Your task to perform on an android device: Is it going to rain today? Image 0: 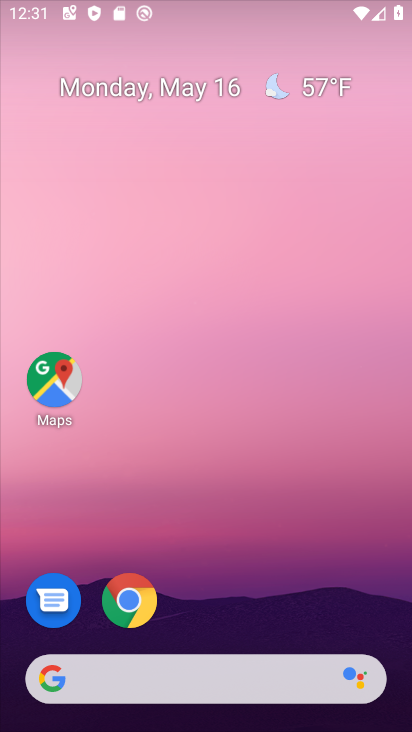
Step 0: drag from (266, 615) to (298, 146)
Your task to perform on an android device: Is it going to rain today? Image 1: 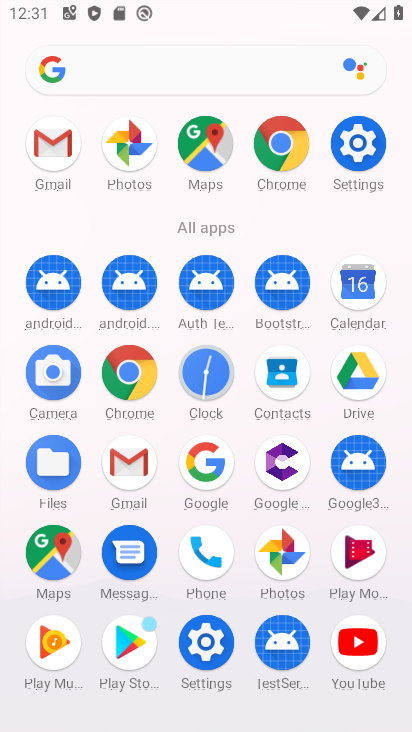
Step 1: click (161, 65)
Your task to perform on an android device: Is it going to rain today? Image 2: 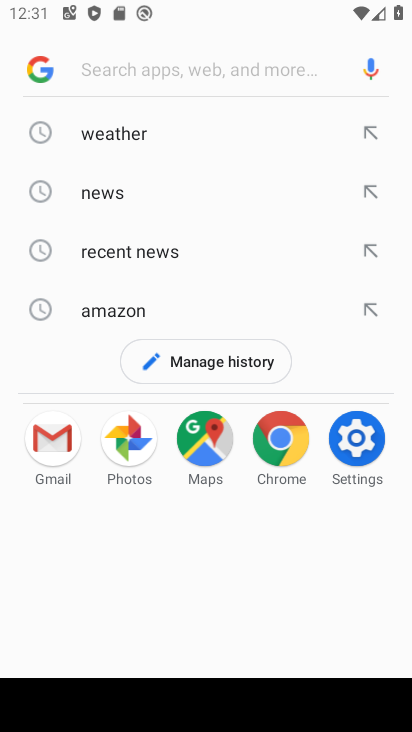
Step 2: click (89, 125)
Your task to perform on an android device: Is it going to rain today? Image 3: 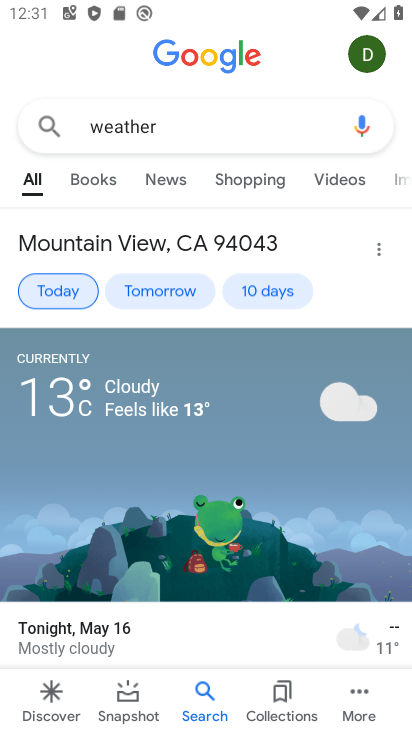
Step 3: task complete